Your task to perform on an android device: What's the weather going to be tomorrow? Image 0: 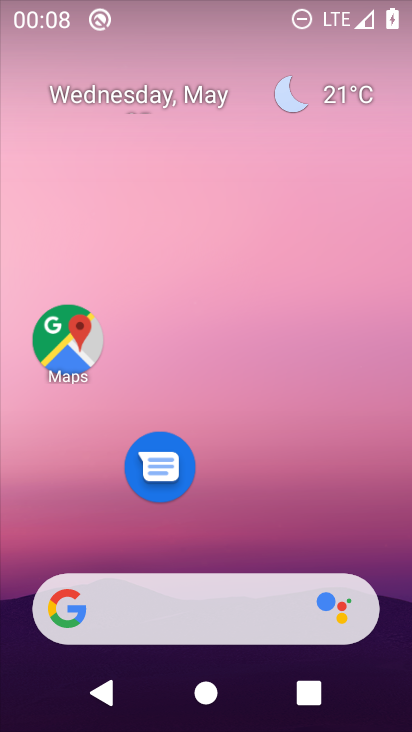
Step 0: drag from (197, 541) to (5, 409)
Your task to perform on an android device: What's the weather going to be tomorrow? Image 1: 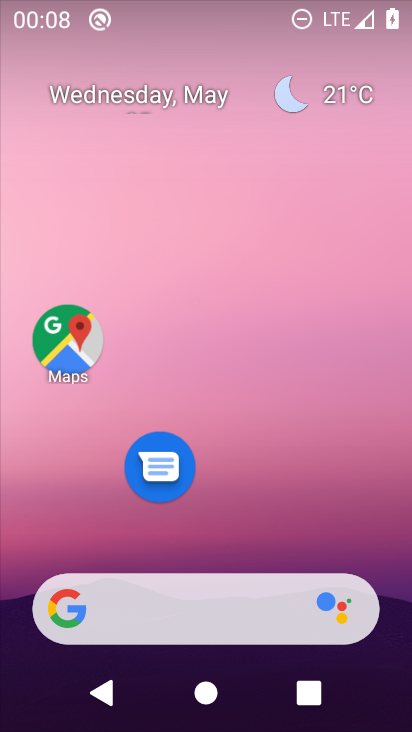
Step 1: drag from (227, 528) to (268, 135)
Your task to perform on an android device: What's the weather going to be tomorrow? Image 2: 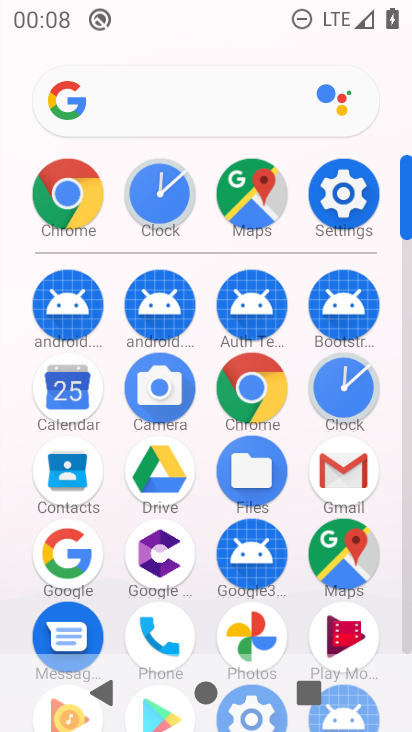
Step 2: click (229, 109)
Your task to perform on an android device: What's the weather going to be tomorrow? Image 3: 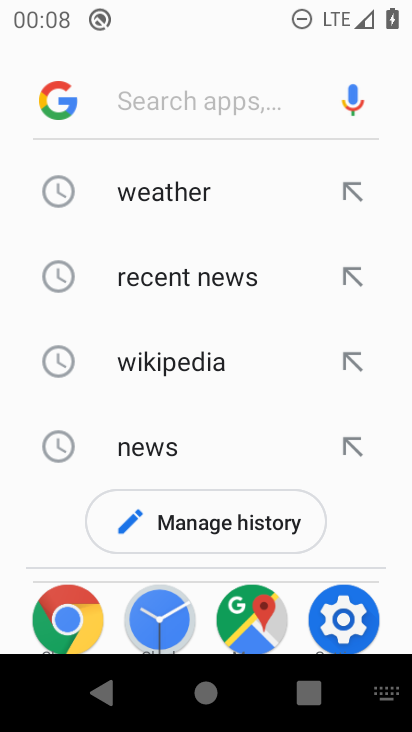
Step 3: click (155, 93)
Your task to perform on an android device: What's the weather going to be tomorrow? Image 4: 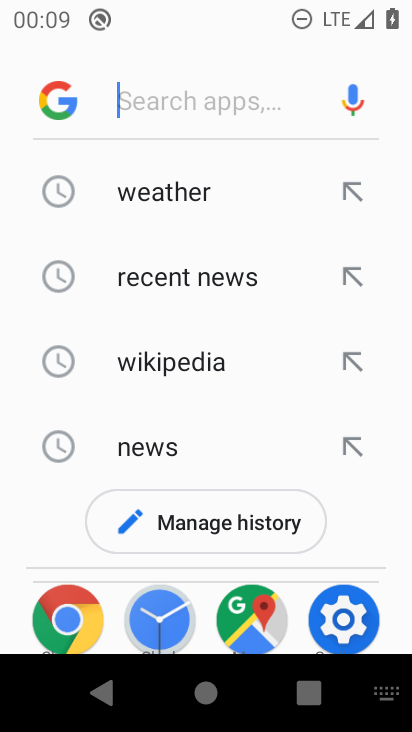
Step 4: type "weather going to be tomorrow?"
Your task to perform on an android device: What's the weather going to be tomorrow? Image 5: 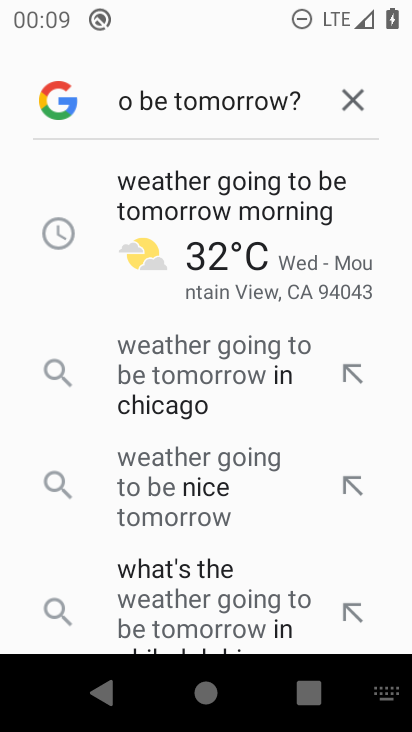
Step 5: click (216, 213)
Your task to perform on an android device: What's the weather going to be tomorrow? Image 6: 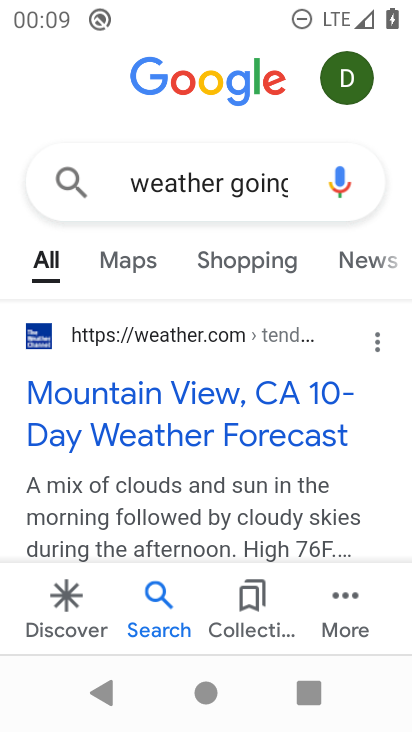
Step 6: task complete